Your task to perform on an android device: Do I have any events tomorrow? Image 0: 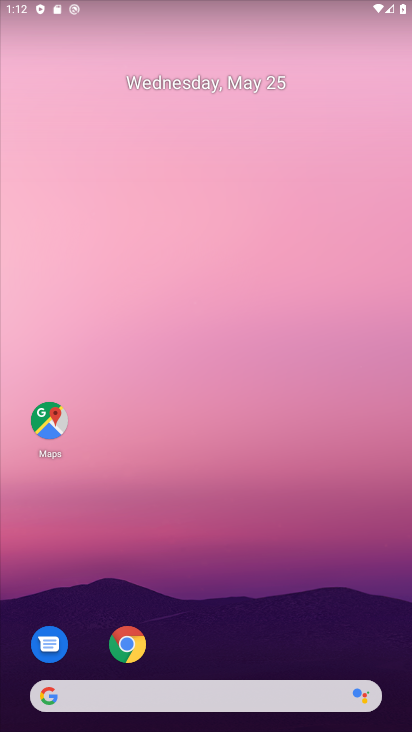
Step 0: drag from (206, 653) to (197, 158)
Your task to perform on an android device: Do I have any events tomorrow? Image 1: 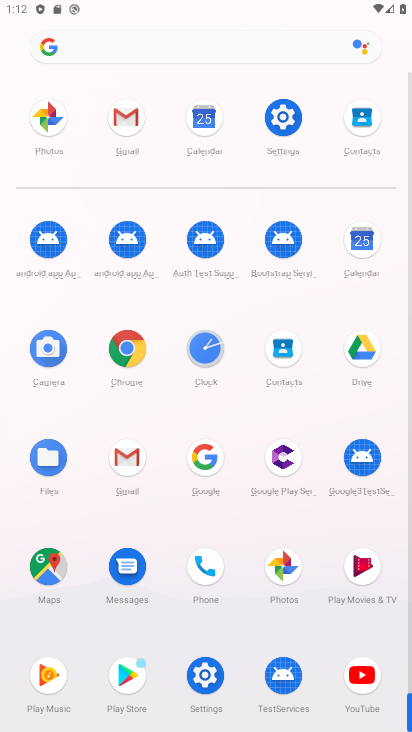
Step 1: click (372, 263)
Your task to perform on an android device: Do I have any events tomorrow? Image 2: 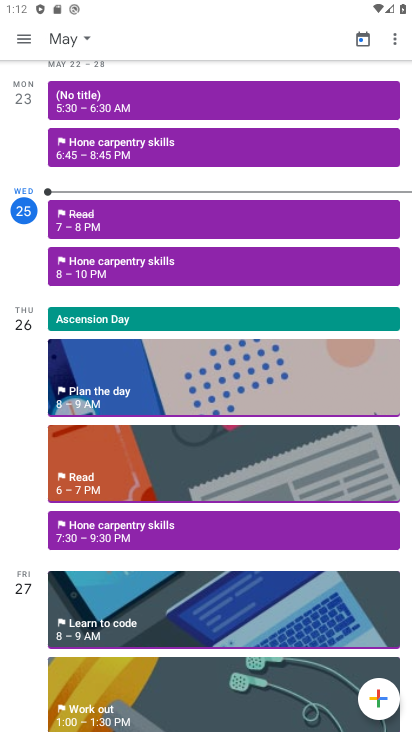
Step 2: task complete